Your task to perform on an android device: change the clock display to show seconds Image 0: 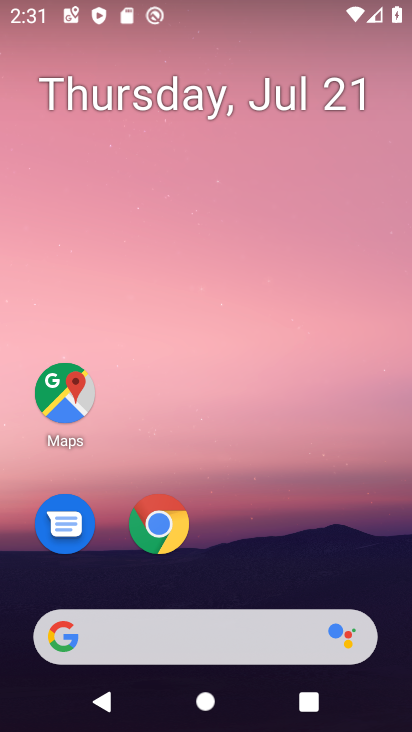
Step 0: drag from (258, 552) to (290, 116)
Your task to perform on an android device: change the clock display to show seconds Image 1: 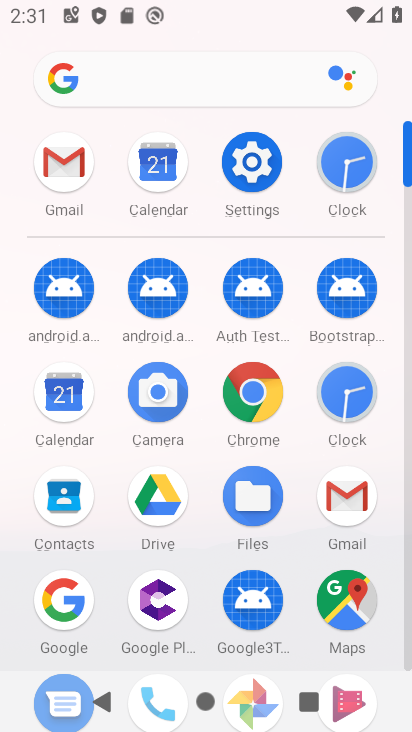
Step 1: click (336, 166)
Your task to perform on an android device: change the clock display to show seconds Image 2: 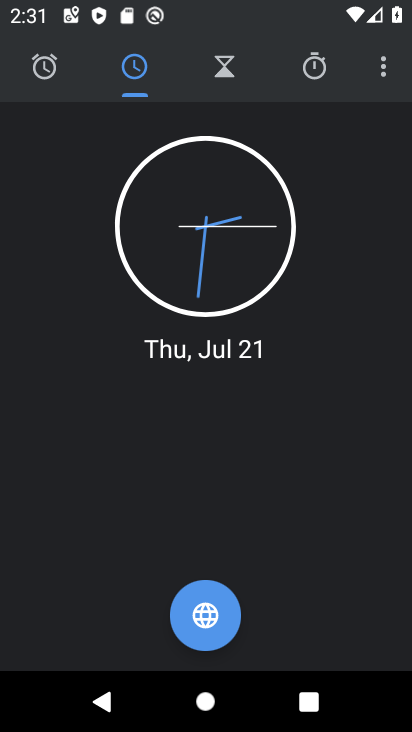
Step 2: task complete